Your task to perform on an android device: turn off location Image 0: 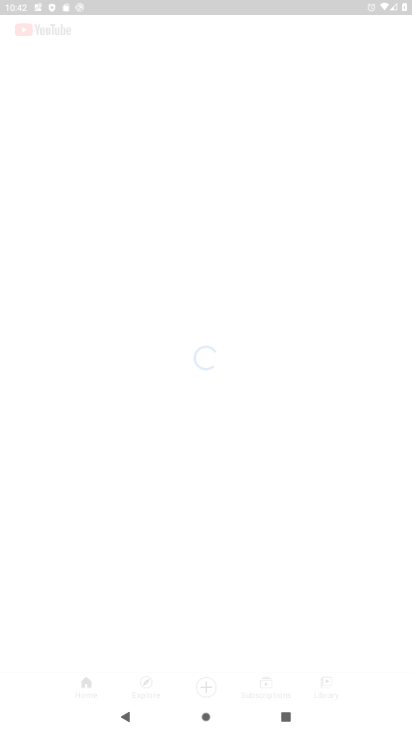
Step 0: click (142, 616)
Your task to perform on an android device: turn off location Image 1: 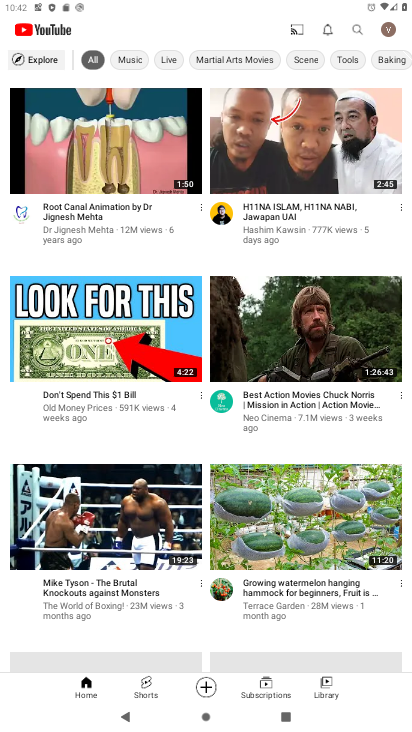
Step 1: press home button
Your task to perform on an android device: turn off location Image 2: 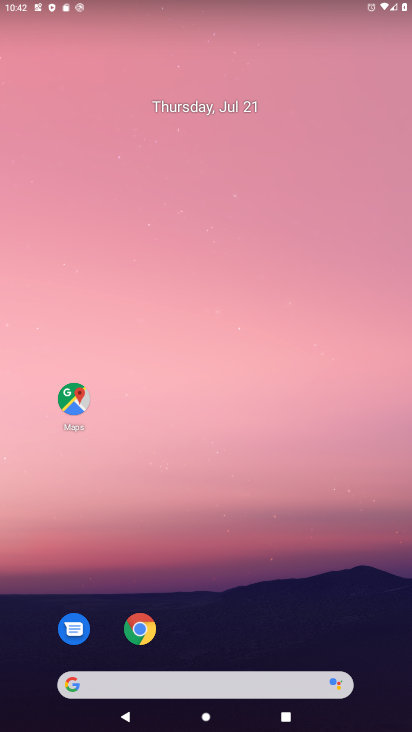
Step 2: click (235, 568)
Your task to perform on an android device: turn off location Image 3: 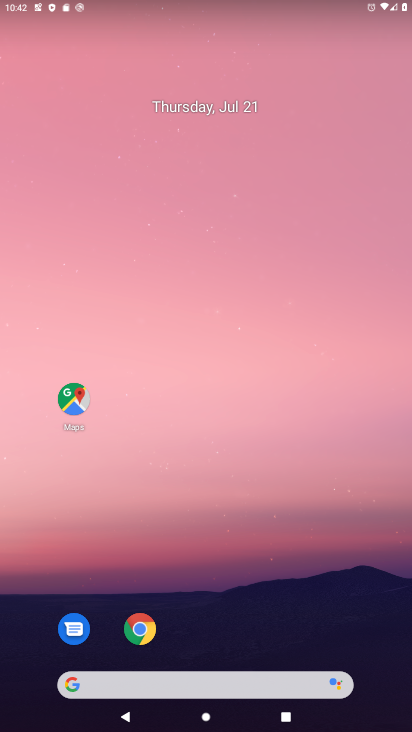
Step 3: drag from (215, 637) to (260, 167)
Your task to perform on an android device: turn off location Image 4: 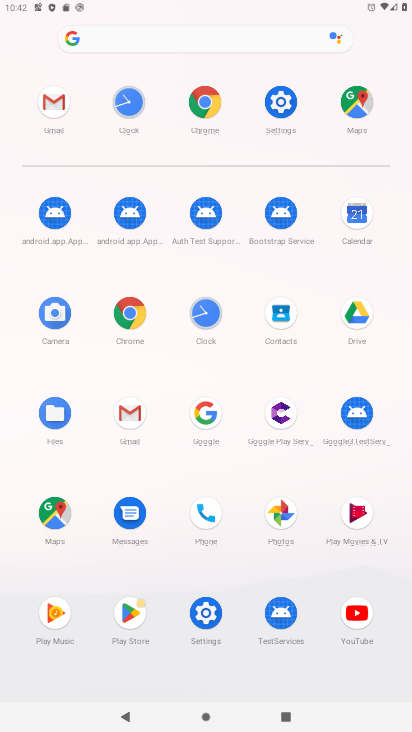
Step 4: click (282, 112)
Your task to perform on an android device: turn off location Image 5: 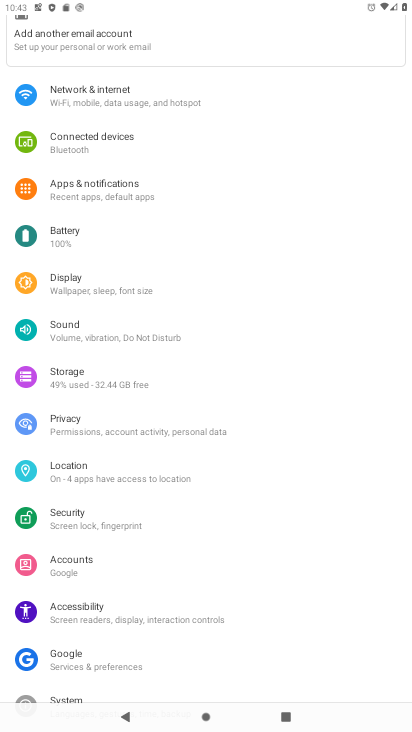
Step 5: click (79, 481)
Your task to perform on an android device: turn off location Image 6: 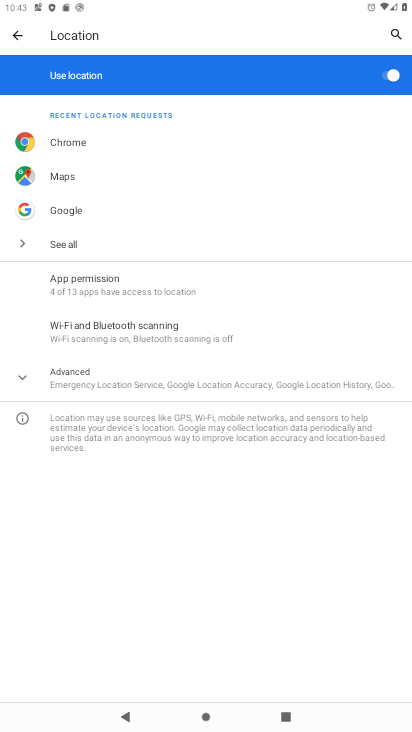
Step 6: click (381, 76)
Your task to perform on an android device: turn off location Image 7: 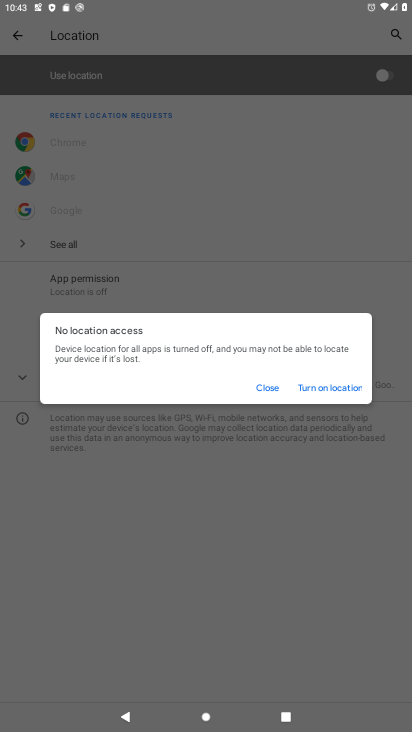
Step 7: task complete